Your task to perform on an android device: Go to settings Image 0: 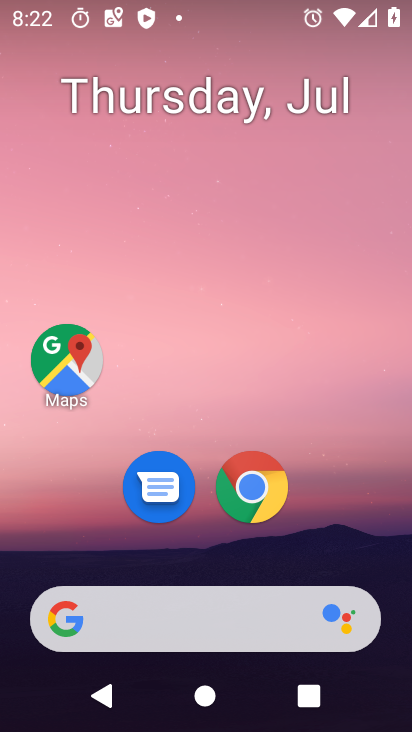
Step 0: drag from (266, 587) to (204, 174)
Your task to perform on an android device: Go to settings Image 1: 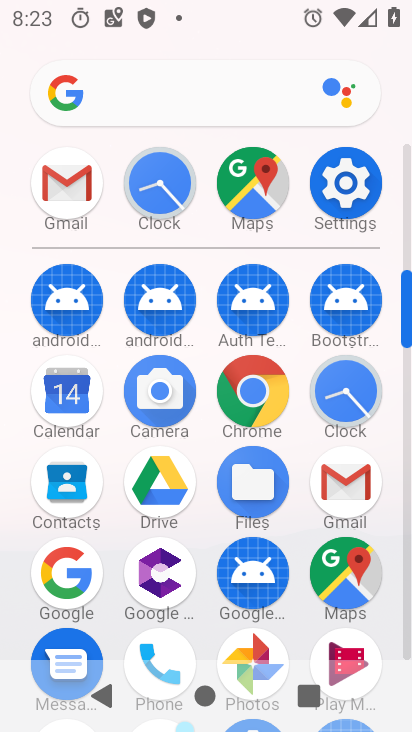
Step 1: click (346, 212)
Your task to perform on an android device: Go to settings Image 2: 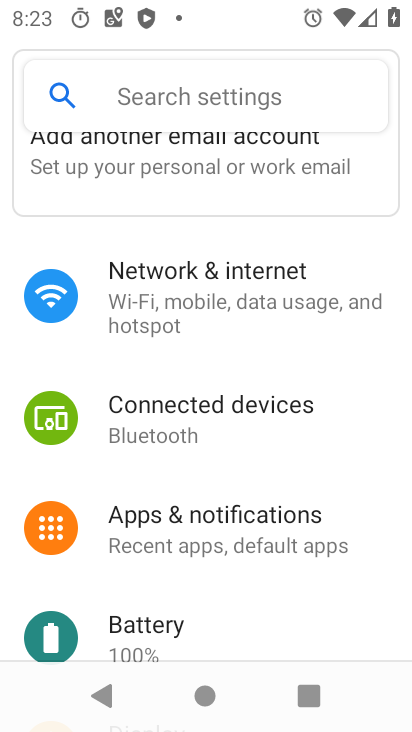
Step 2: task complete